Your task to perform on an android device: Open Google Chrome and click the shortcut for Amazon.com Image 0: 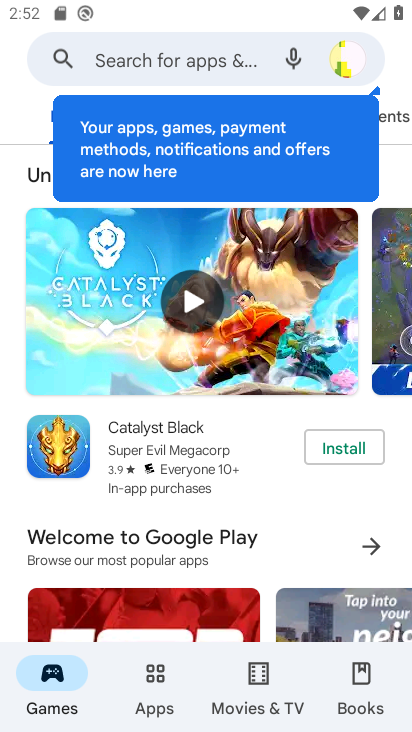
Step 0: press home button
Your task to perform on an android device: Open Google Chrome and click the shortcut for Amazon.com Image 1: 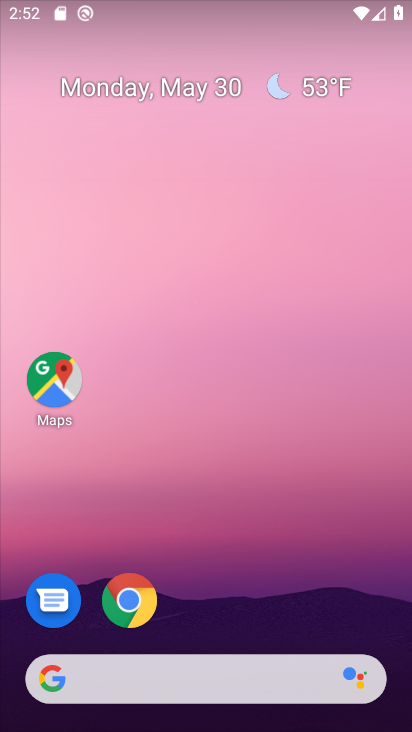
Step 1: drag from (313, 576) to (269, 129)
Your task to perform on an android device: Open Google Chrome and click the shortcut for Amazon.com Image 2: 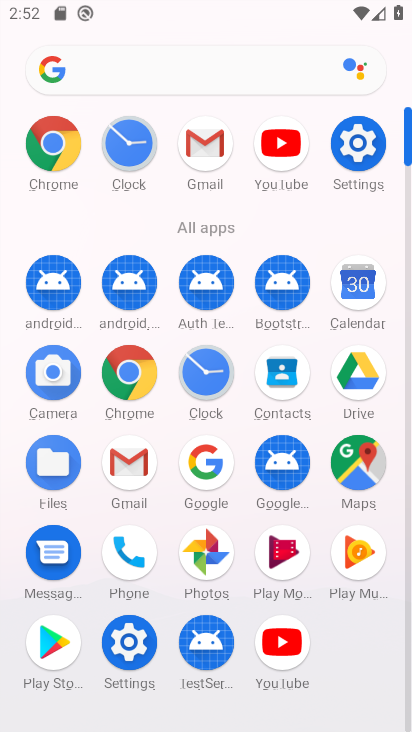
Step 2: click (64, 142)
Your task to perform on an android device: Open Google Chrome and click the shortcut for Amazon.com Image 3: 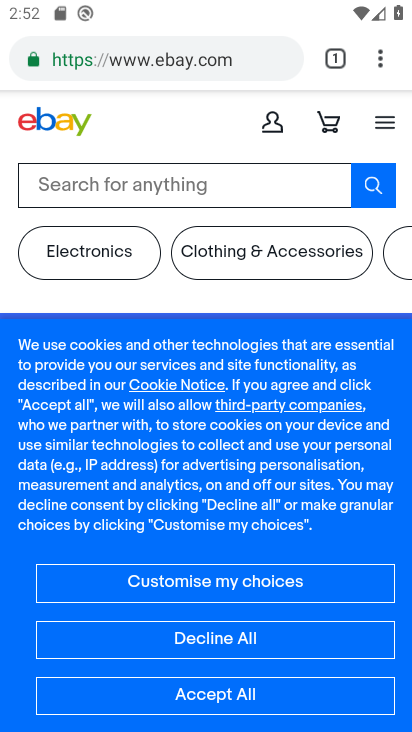
Step 3: click (174, 53)
Your task to perform on an android device: Open Google Chrome and click the shortcut for Amazon.com Image 4: 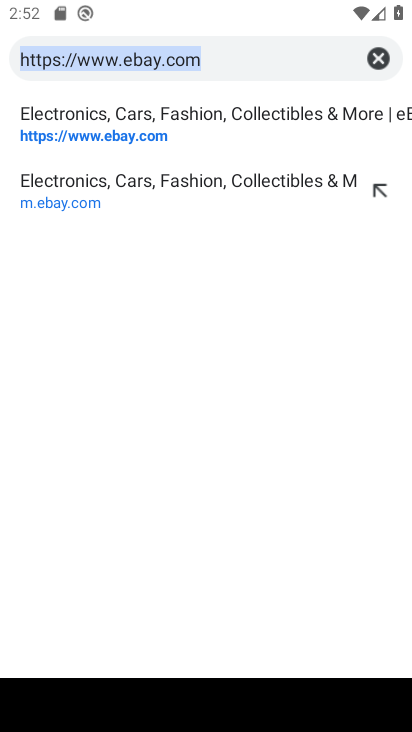
Step 4: click (388, 61)
Your task to perform on an android device: Open Google Chrome and click the shortcut for Amazon.com Image 5: 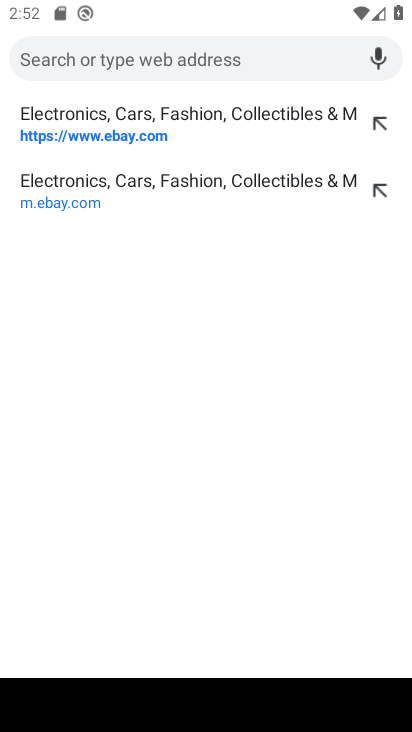
Step 5: type "amazon"
Your task to perform on an android device: Open Google Chrome and click the shortcut for Amazon.com Image 6: 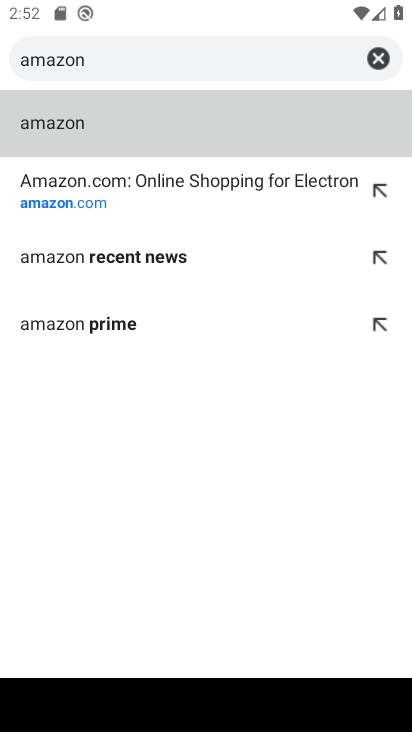
Step 6: click (38, 194)
Your task to perform on an android device: Open Google Chrome and click the shortcut for Amazon.com Image 7: 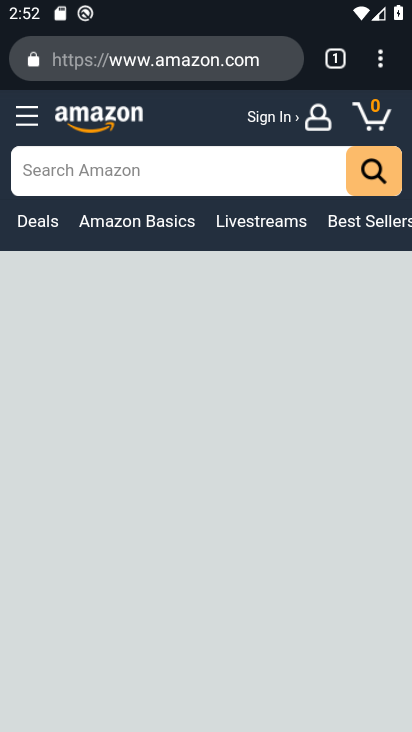
Step 7: drag from (393, 61) to (235, 548)
Your task to perform on an android device: Open Google Chrome and click the shortcut for Amazon.com Image 8: 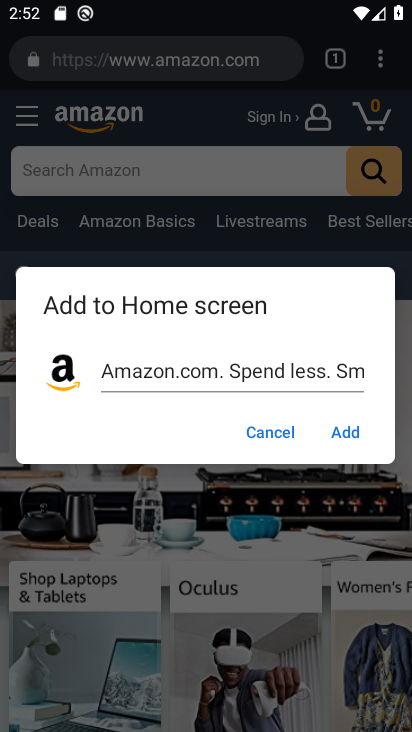
Step 8: click (350, 430)
Your task to perform on an android device: Open Google Chrome and click the shortcut for Amazon.com Image 9: 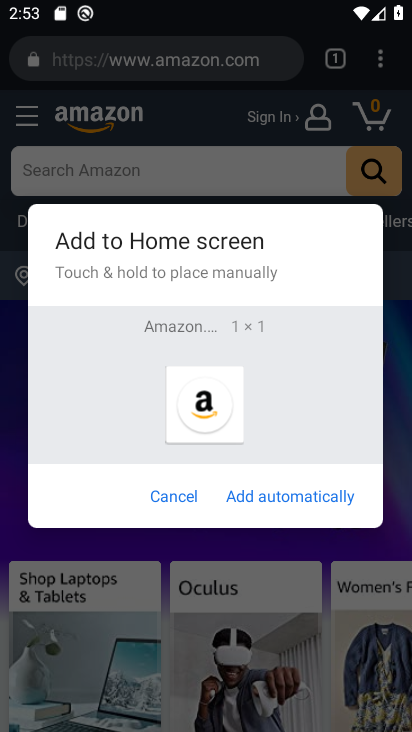
Step 9: task complete